Your task to perform on an android device: Open sound settings Image 0: 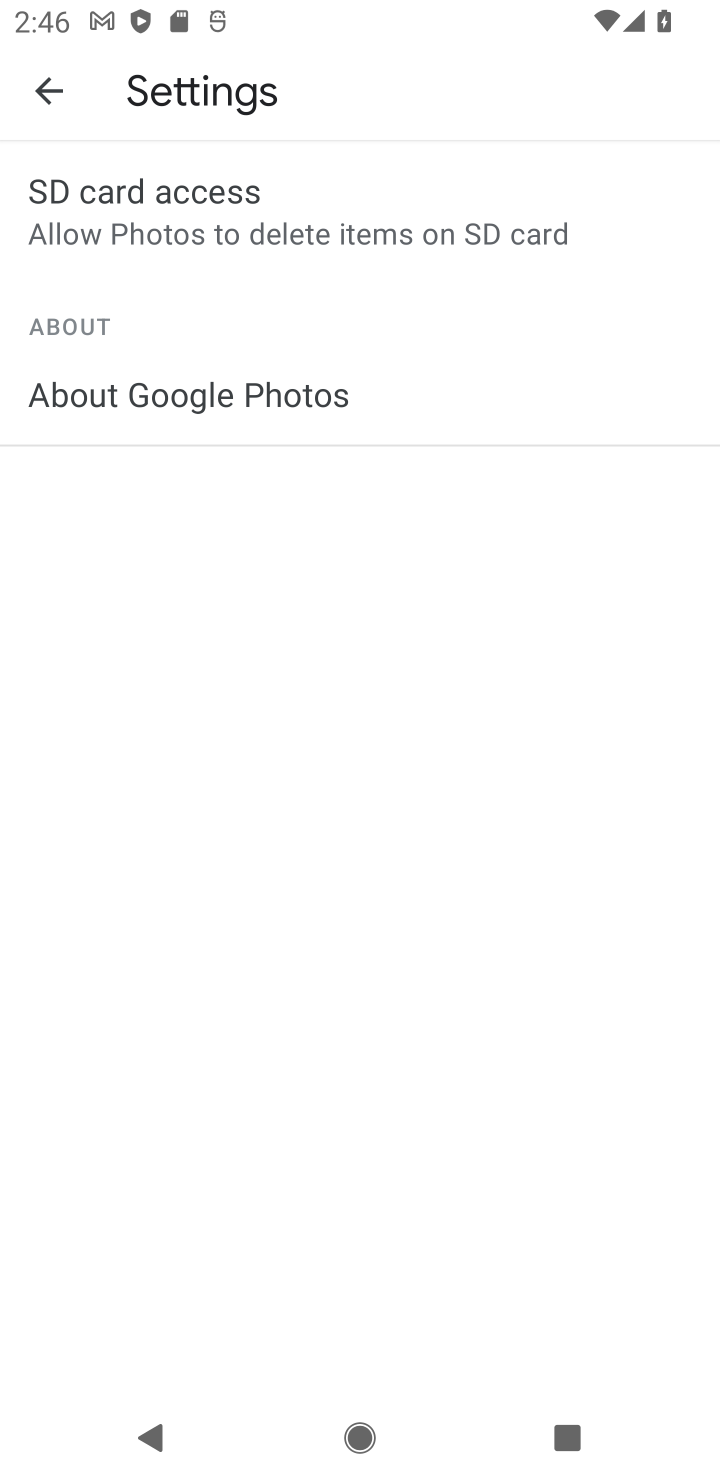
Step 0: press home button
Your task to perform on an android device: Open sound settings Image 1: 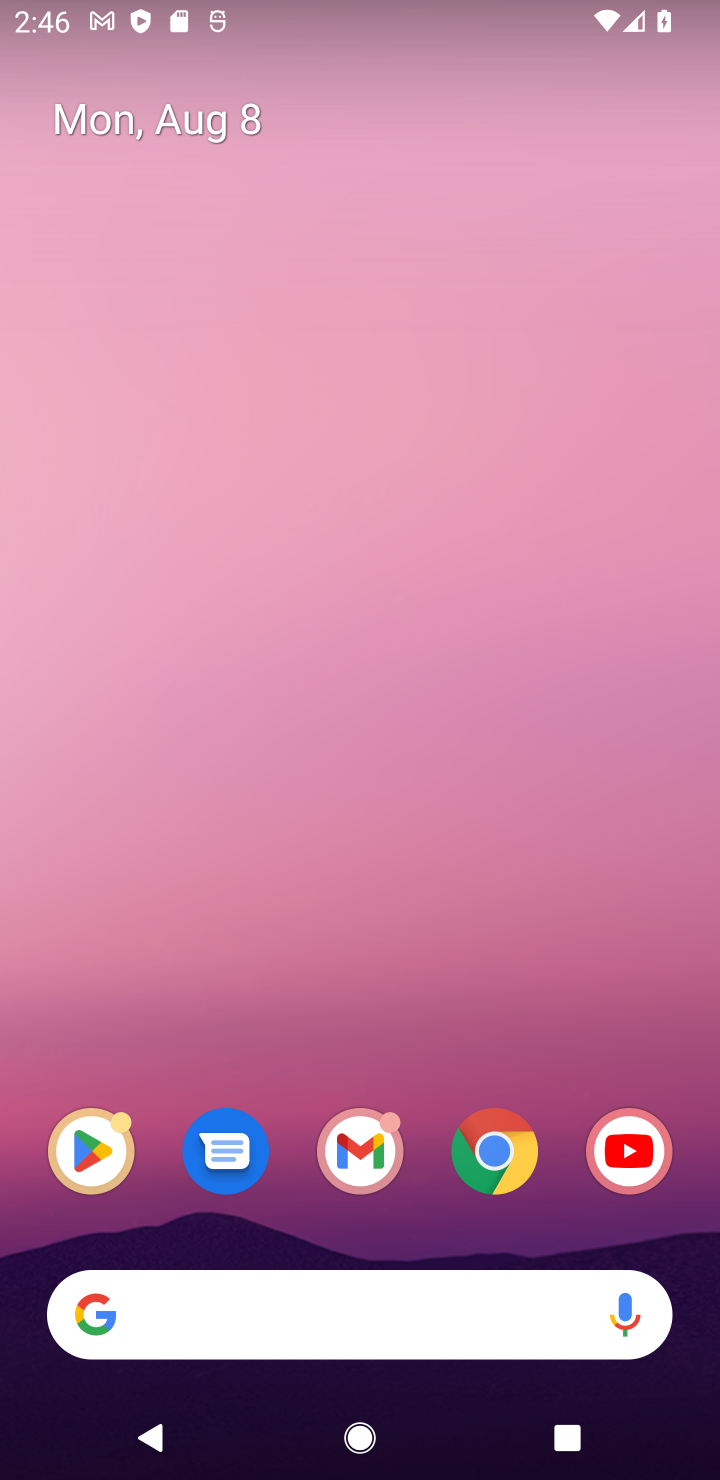
Step 1: drag from (379, 955) to (392, 298)
Your task to perform on an android device: Open sound settings Image 2: 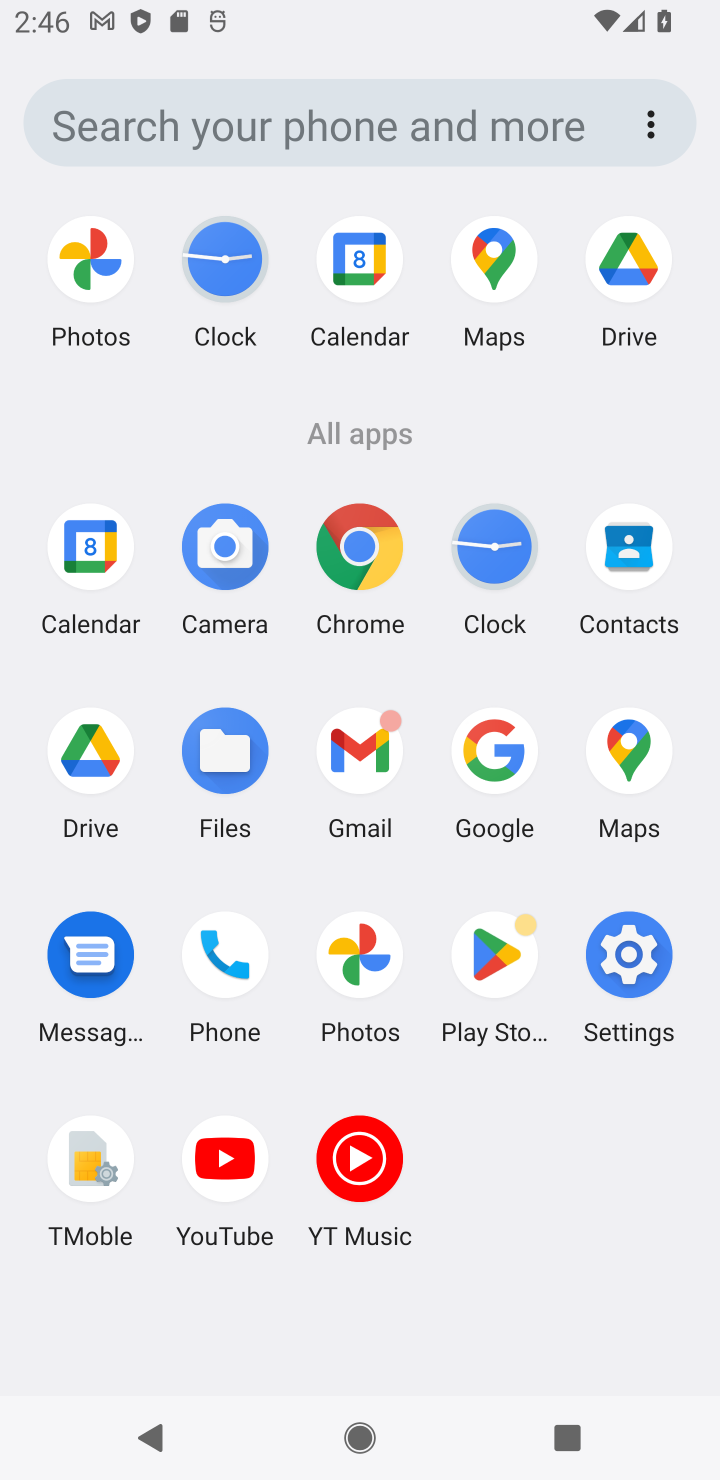
Step 2: click (599, 985)
Your task to perform on an android device: Open sound settings Image 3: 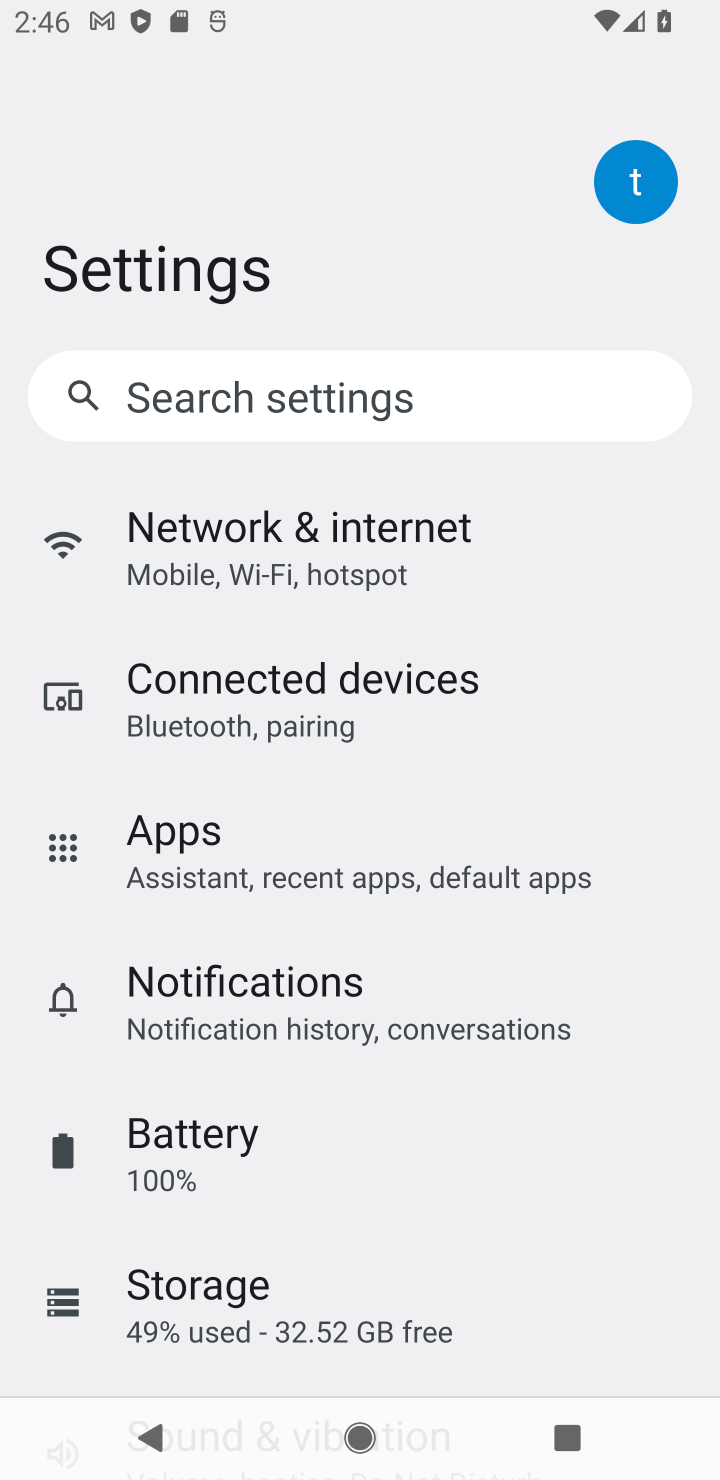
Step 3: drag from (340, 1112) to (461, 534)
Your task to perform on an android device: Open sound settings Image 4: 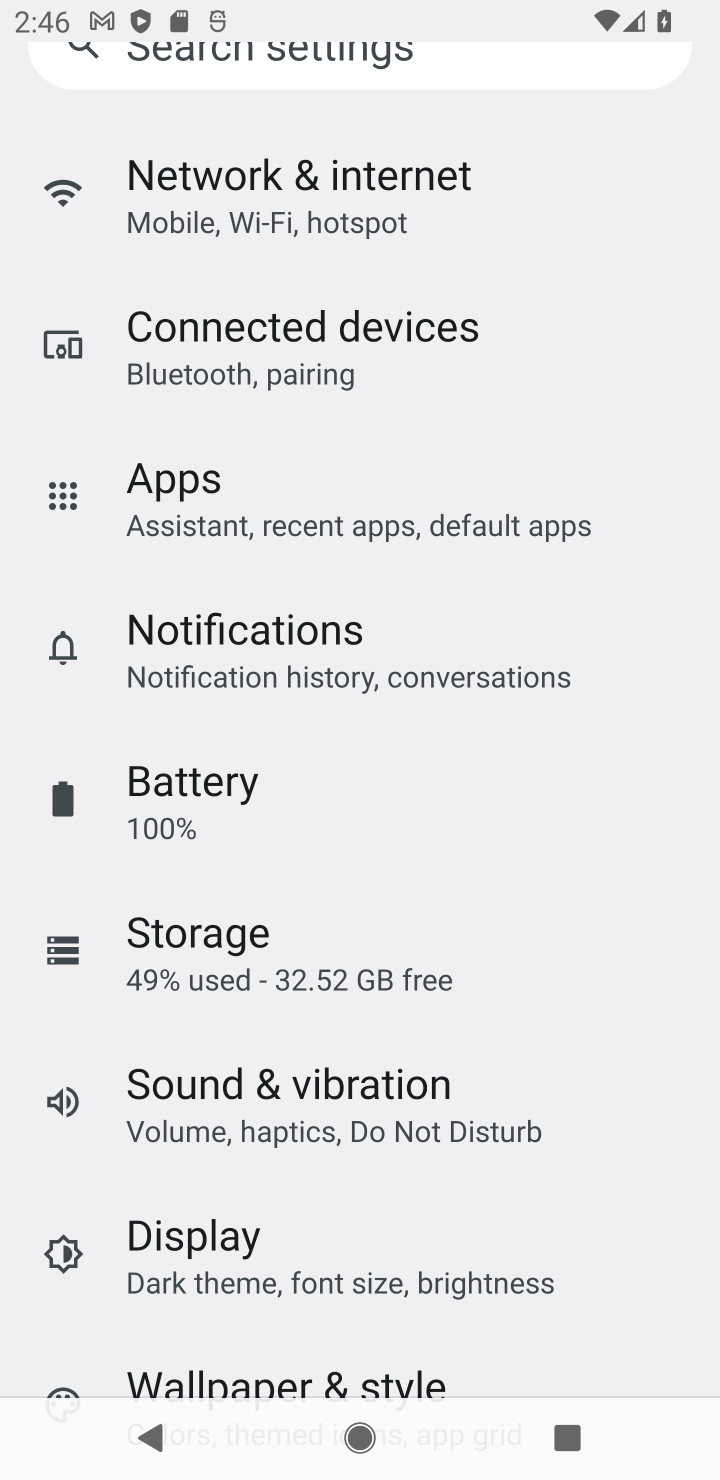
Step 4: click (381, 1076)
Your task to perform on an android device: Open sound settings Image 5: 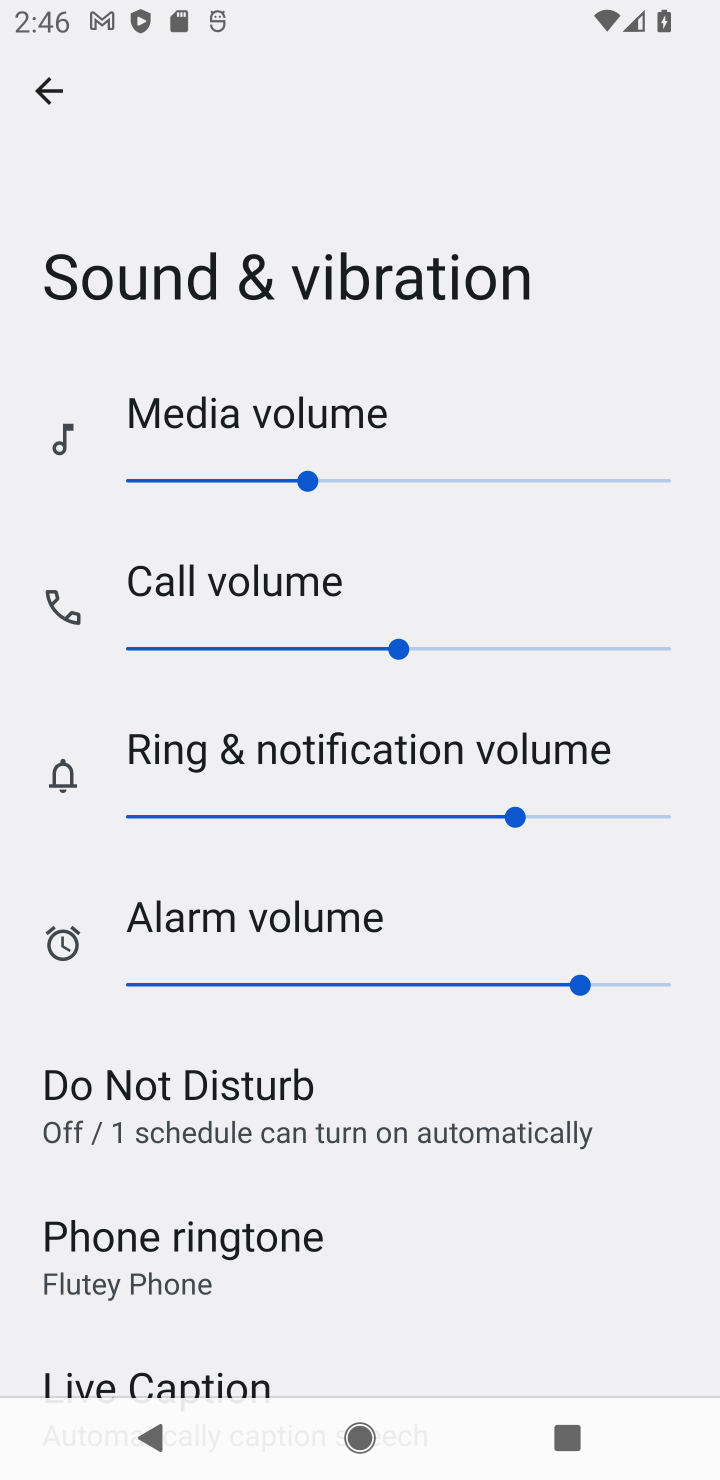
Step 5: task complete